Your task to perform on an android device: What is the speed of a cheetah? Image 0: 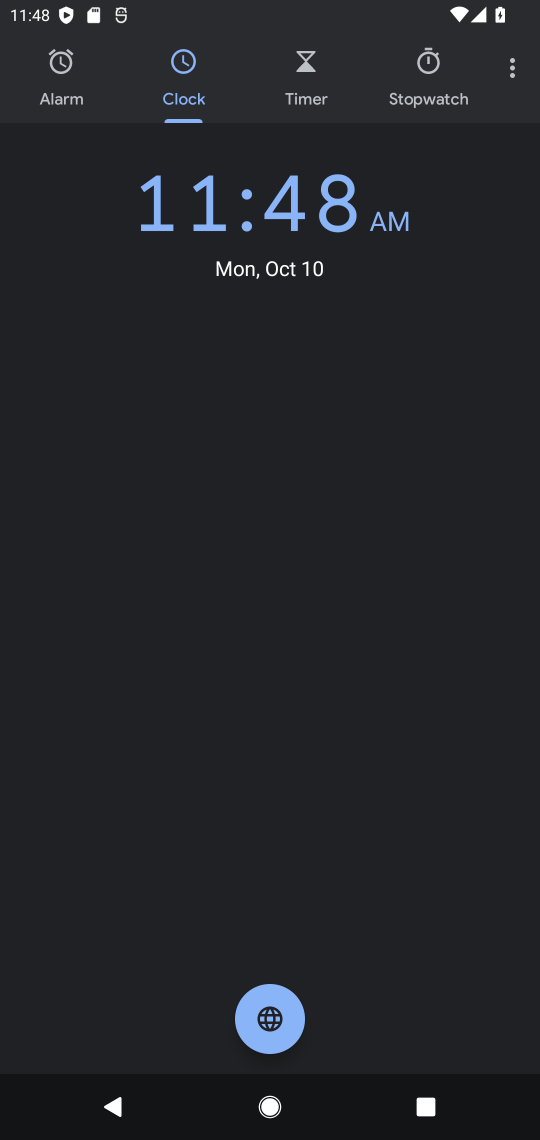
Step 0: press home button
Your task to perform on an android device: What is the speed of a cheetah? Image 1: 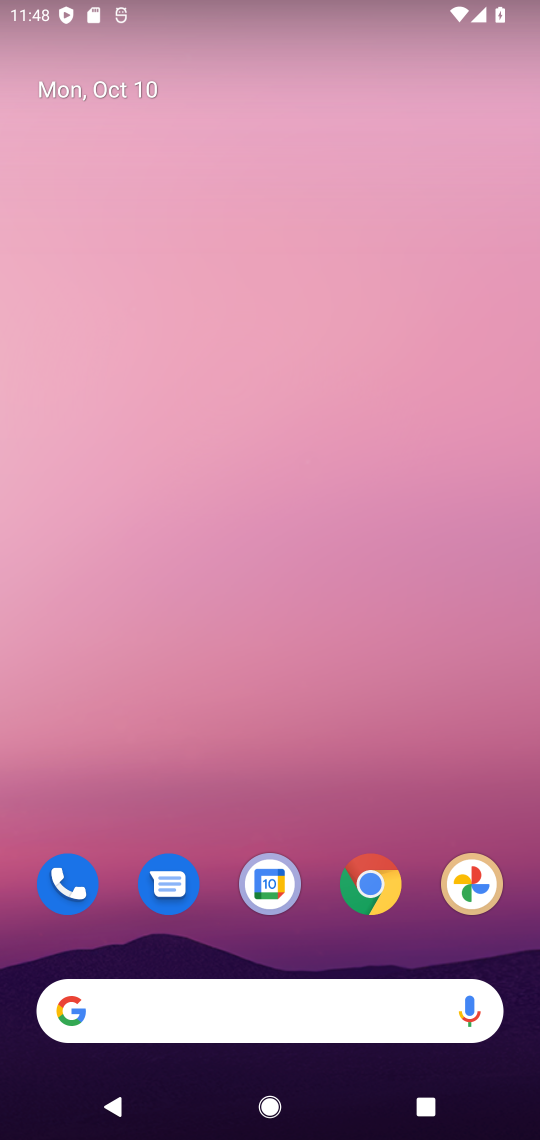
Step 1: click (370, 893)
Your task to perform on an android device: What is the speed of a cheetah? Image 2: 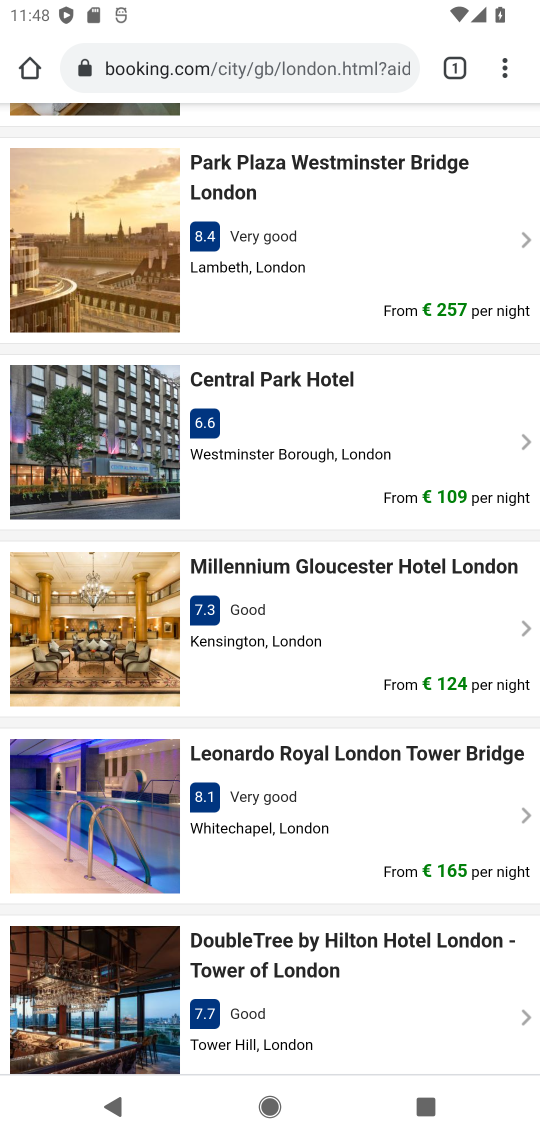
Step 2: click (312, 74)
Your task to perform on an android device: What is the speed of a cheetah? Image 3: 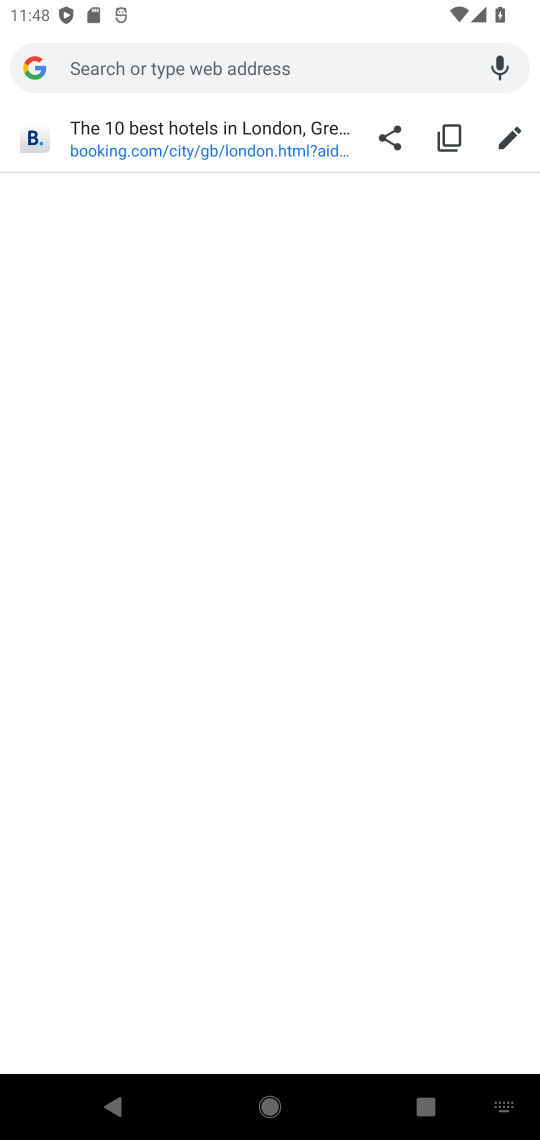
Step 3: type "speed of cheetah"
Your task to perform on an android device: What is the speed of a cheetah? Image 4: 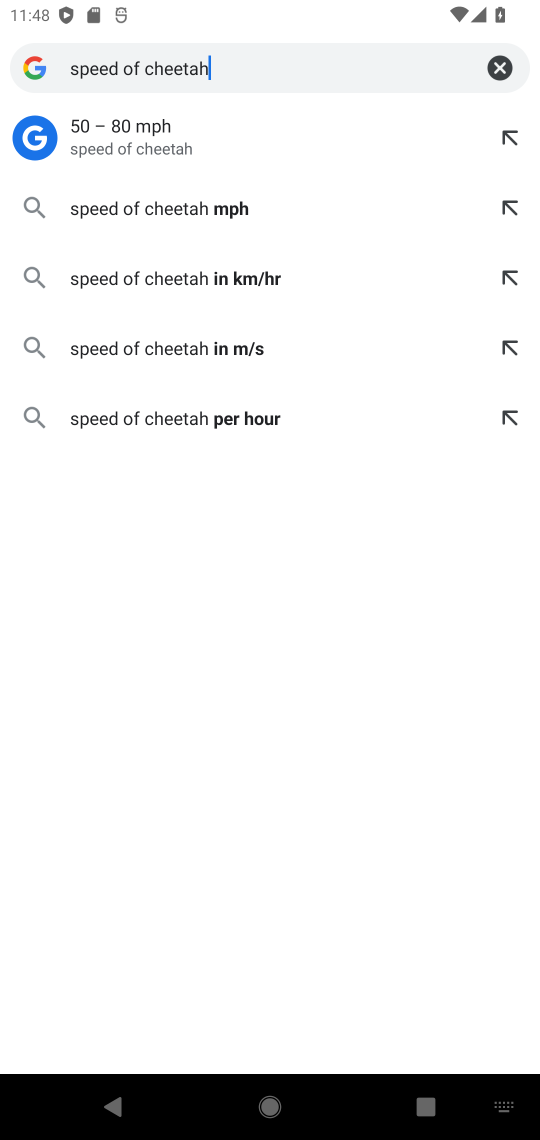
Step 4: press enter
Your task to perform on an android device: What is the speed of a cheetah? Image 5: 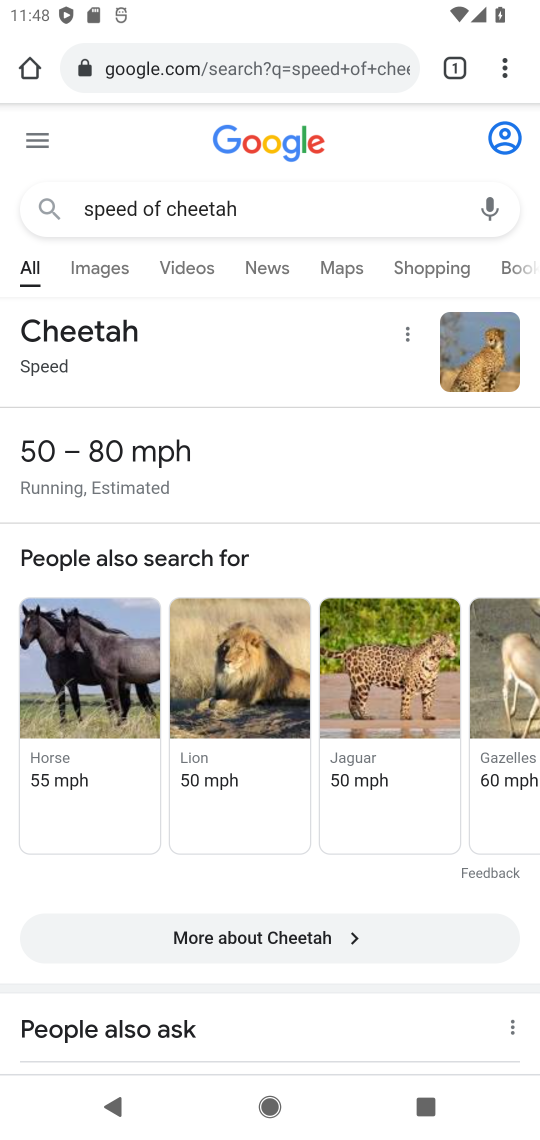
Step 5: task complete